Your task to perform on an android device: delete location history Image 0: 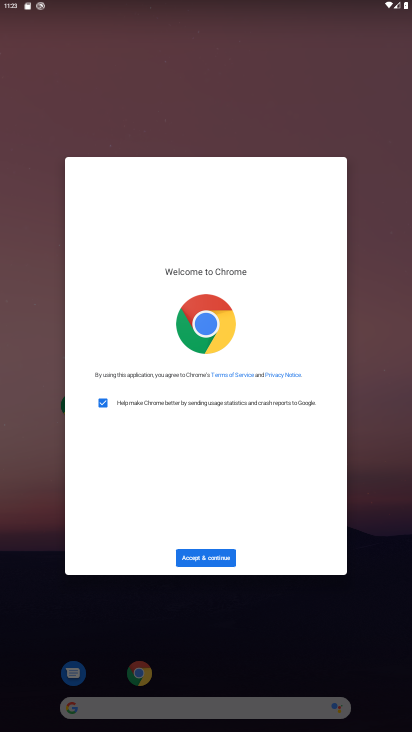
Step 0: press home button
Your task to perform on an android device: delete location history Image 1: 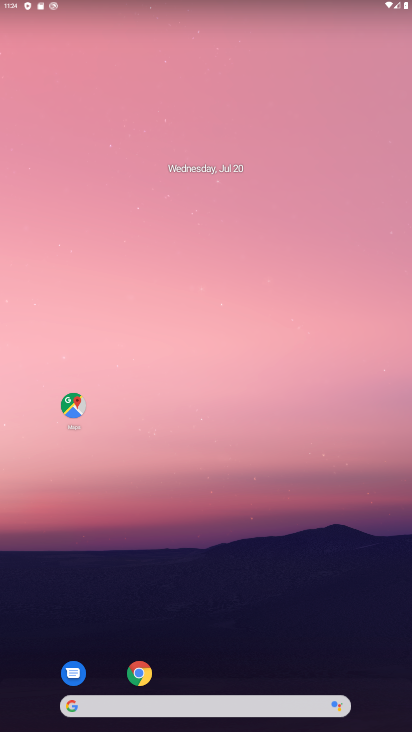
Step 1: drag from (196, 684) to (403, 205)
Your task to perform on an android device: delete location history Image 2: 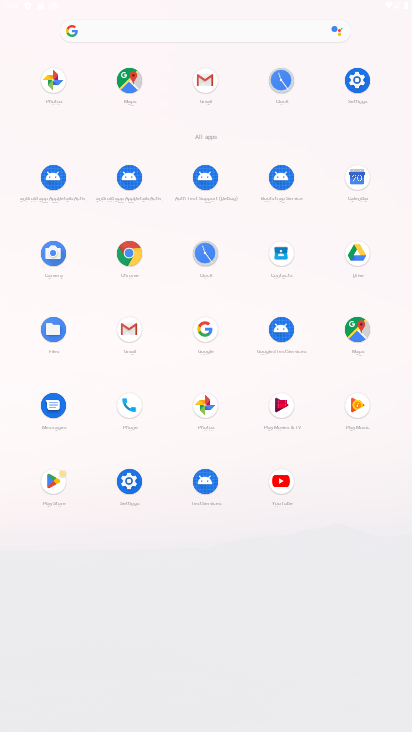
Step 2: click (355, 365)
Your task to perform on an android device: delete location history Image 3: 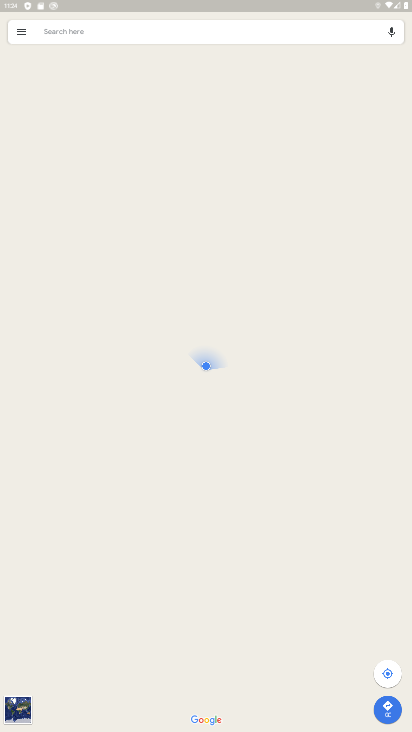
Step 3: click (17, 35)
Your task to perform on an android device: delete location history Image 4: 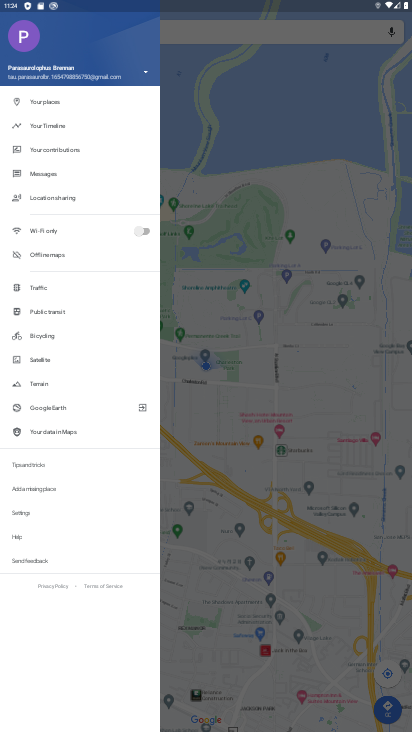
Step 4: click (44, 128)
Your task to perform on an android device: delete location history Image 5: 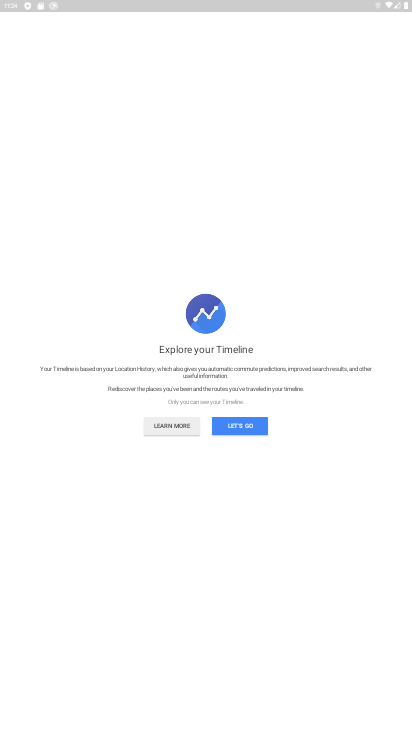
Step 5: click (229, 427)
Your task to perform on an android device: delete location history Image 6: 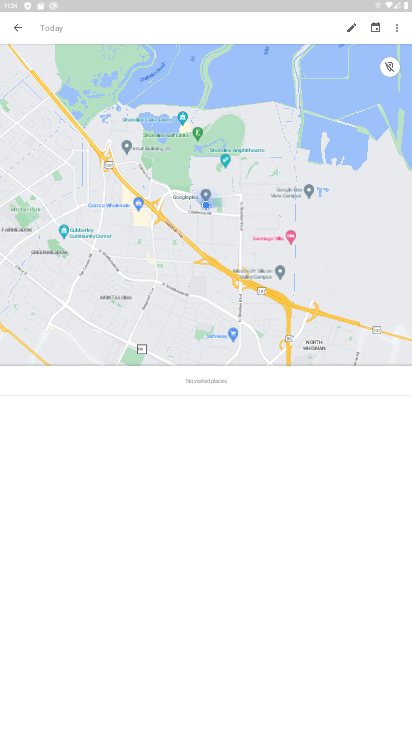
Step 6: click (398, 21)
Your task to perform on an android device: delete location history Image 7: 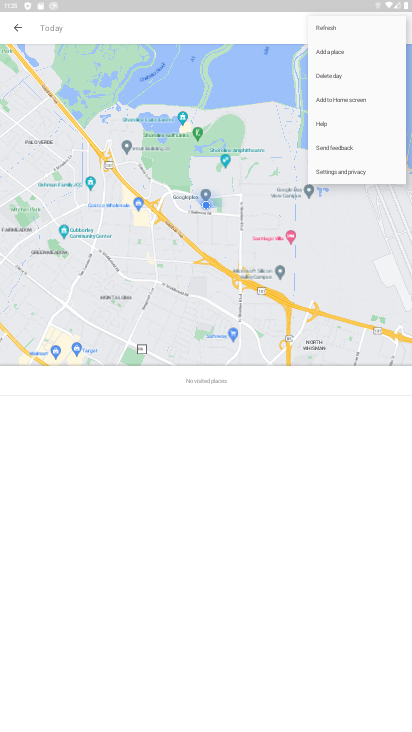
Step 7: click (331, 166)
Your task to perform on an android device: delete location history Image 8: 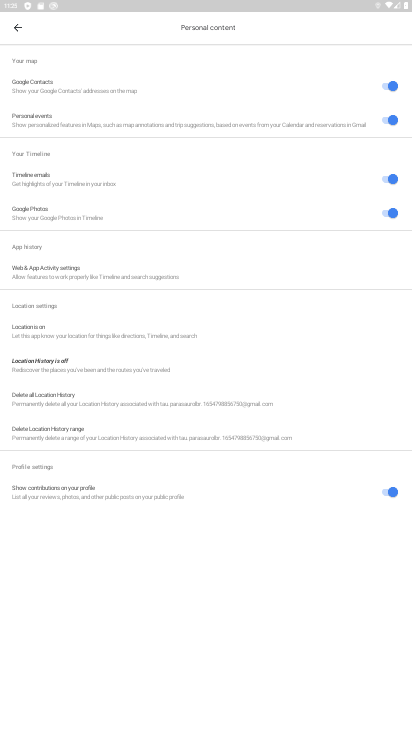
Step 8: click (54, 413)
Your task to perform on an android device: delete location history Image 9: 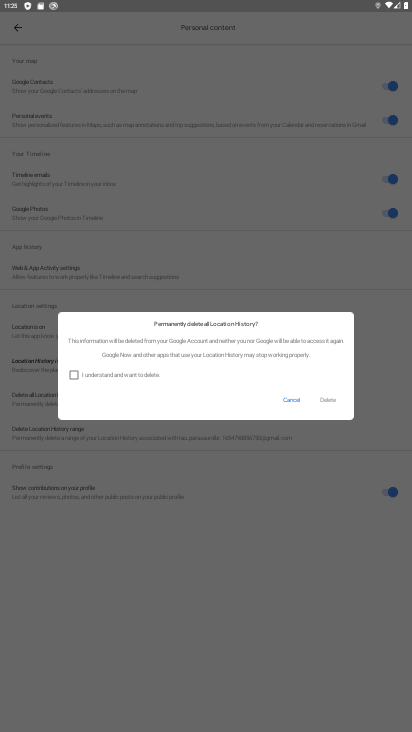
Step 9: click (76, 372)
Your task to perform on an android device: delete location history Image 10: 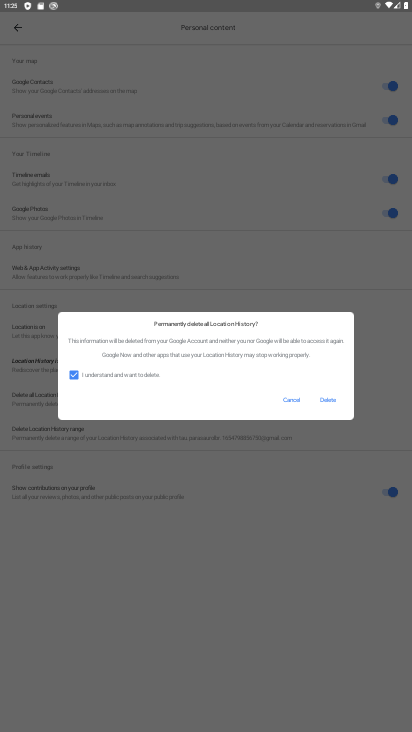
Step 10: click (323, 402)
Your task to perform on an android device: delete location history Image 11: 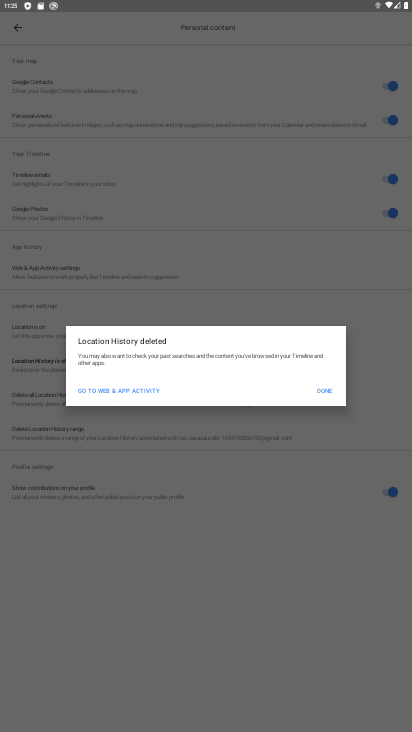
Step 11: click (323, 402)
Your task to perform on an android device: delete location history Image 12: 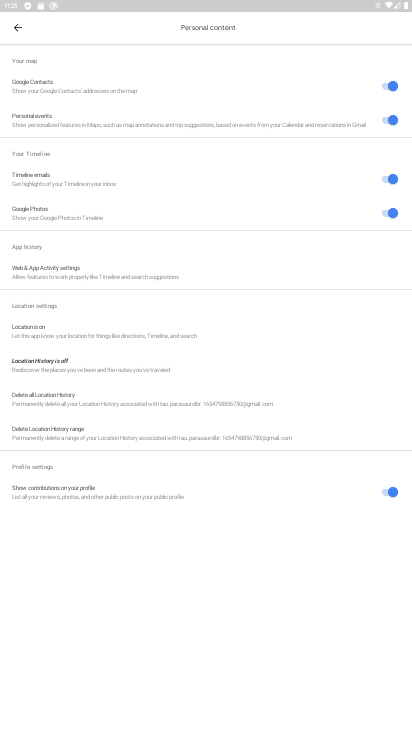
Step 12: task complete